Your task to perform on an android device: empty trash in google photos Image 0: 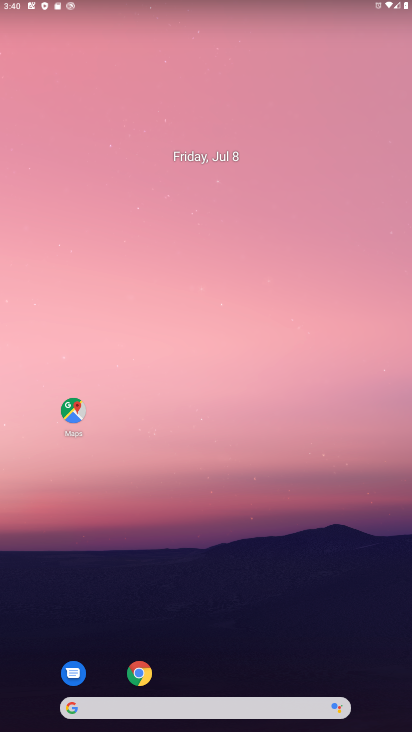
Step 0: drag from (178, 666) to (109, 174)
Your task to perform on an android device: empty trash in google photos Image 1: 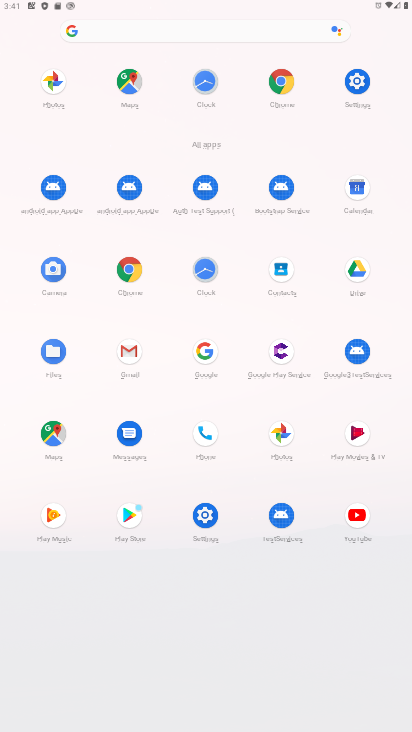
Step 1: click (61, 94)
Your task to perform on an android device: empty trash in google photos Image 2: 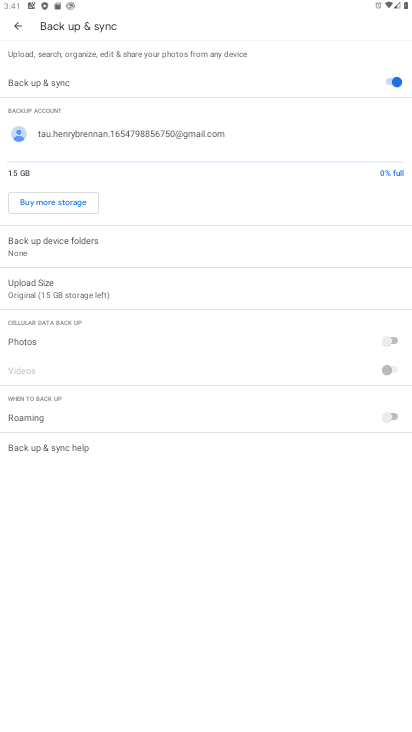
Step 2: press back button
Your task to perform on an android device: empty trash in google photos Image 3: 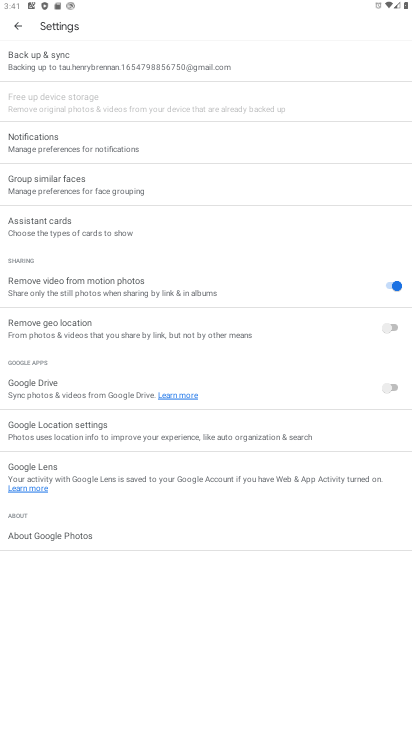
Step 3: press back button
Your task to perform on an android device: empty trash in google photos Image 4: 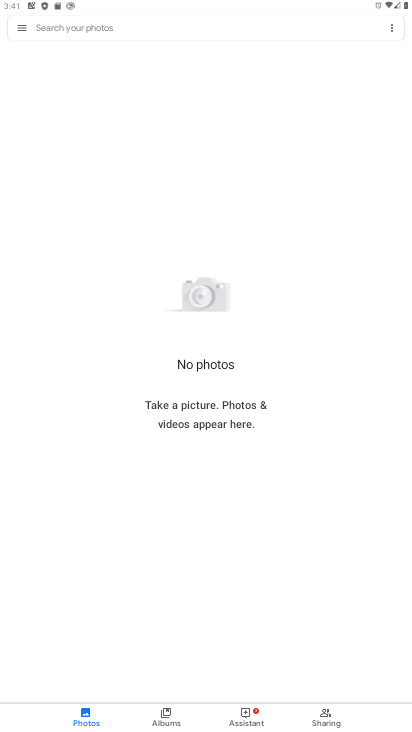
Step 4: click (17, 30)
Your task to perform on an android device: empty trash in google photos Image 5: 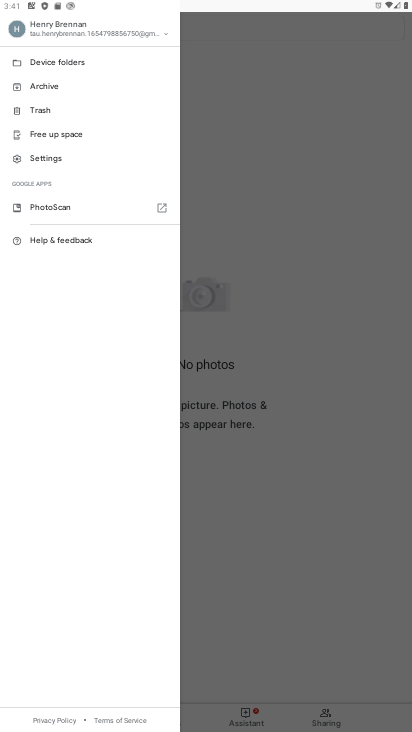
Step 5: click (37, 110)
Your task to perform on an android device: empty trash in google photos Image 6: 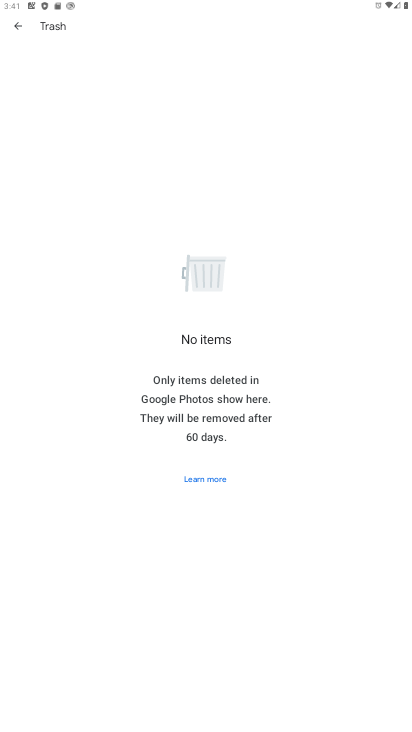
Step 6: task complete